Your task to perform on an android device: Open calendar and show me the third week of next month Image 0: 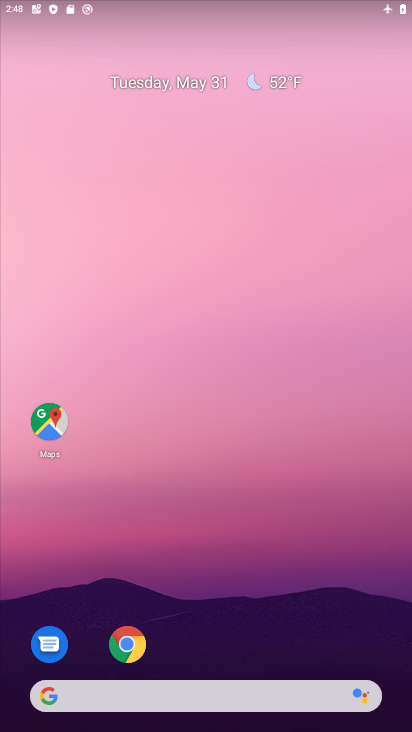
Step 0: drag from (146, 722) to (179, 34)
Your task to perform on an android device: Open calendar and show me the third week of next month Image 1: 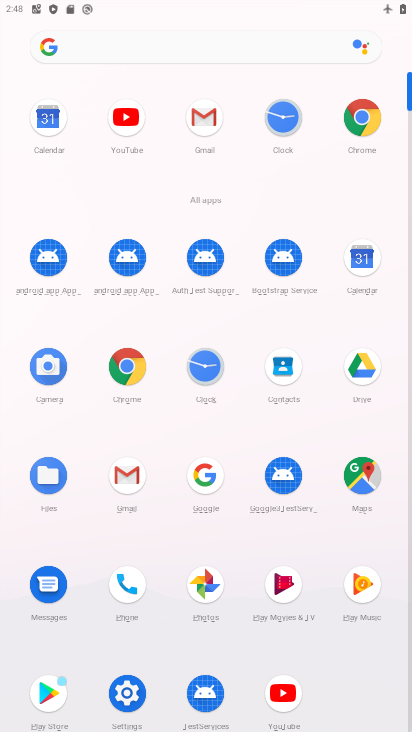
Step 1: click (33, 119)
Your task to perform on an android device: Open calendar and show me the third week of next month Image 2: 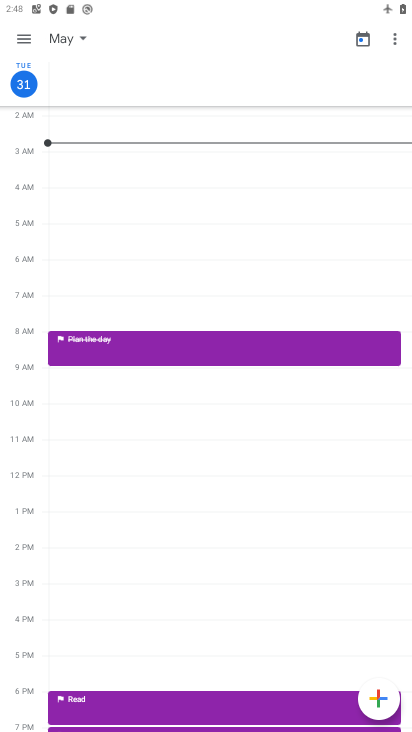
Step 2: click (82, 40)
Your task to perform on an android device: Open calendar and show me the third week of next month Image 3: 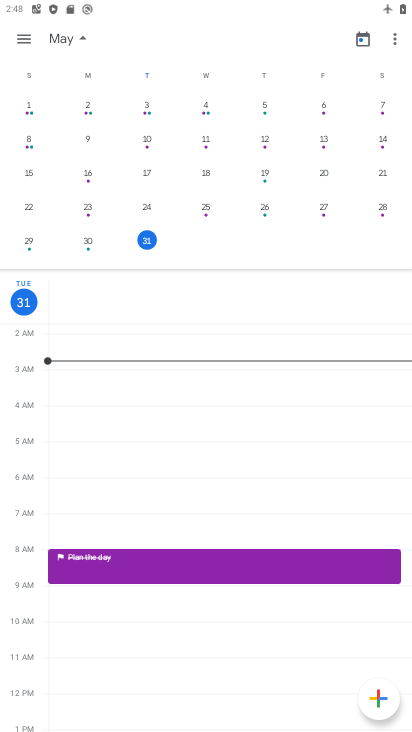
Step 3: drag from (380, 240) to (1, 184)
Your task to perform on an android device: Open calendar and show me the third week of next month Image 4: 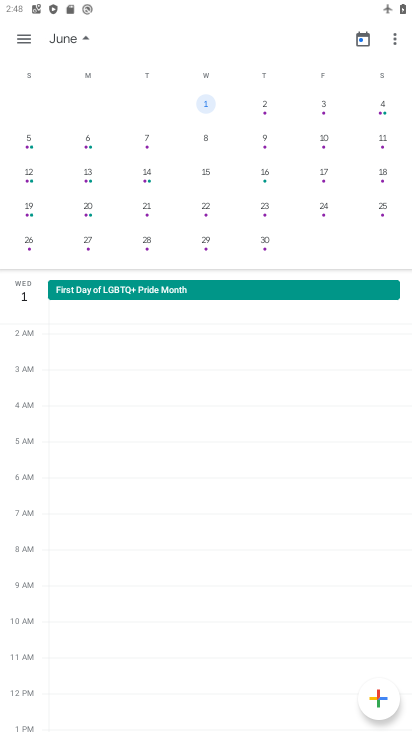
Step 4: click (22, 40)
Your task to perform on an android device: Open calendar and show me the third week of next month Image 5: 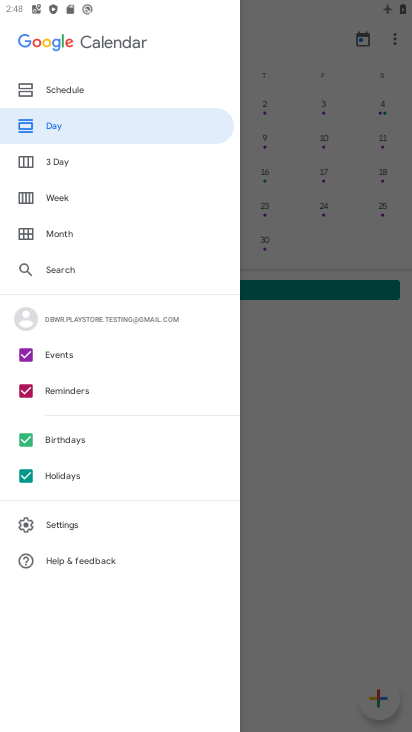
Step 5: click (78, 210)
Your task to perform on an android device: Open calendar and show me the third week of next month Image 6: 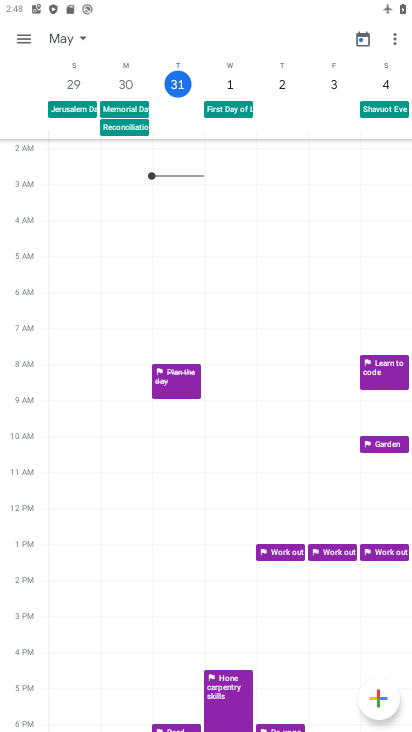
Step 6: task complete